Your task to perform on an android device: Open my contact list Image 0: 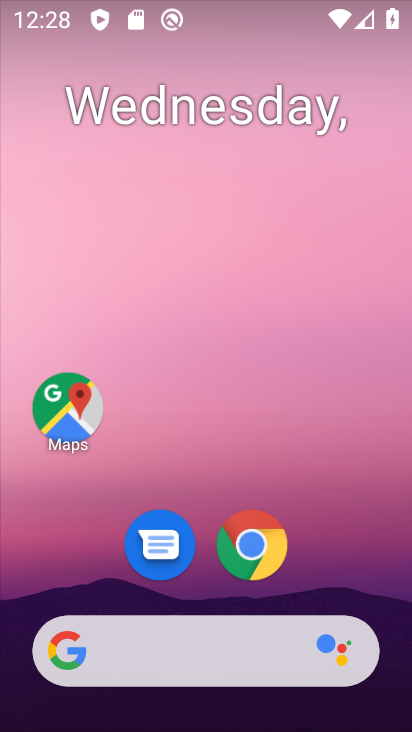
Step 0: drag from (342, 564) to (315, 116)
Your task to perform on an android device: Open my contact list Image 1: 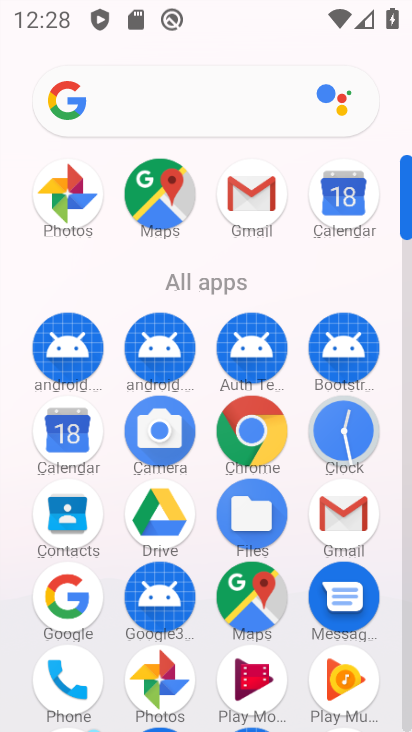
Step 1: click (89, 502)
Your task to perform on an android device: Open my contact list Image 2: 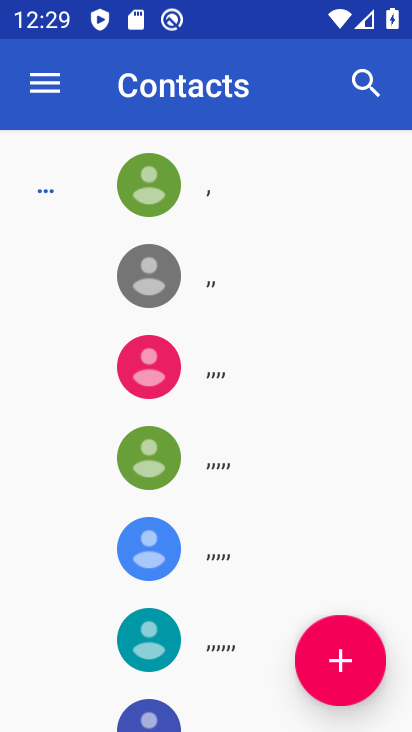
Step 2: task complete